Your task to perform on an android device: When is my next meeting? Image 0: 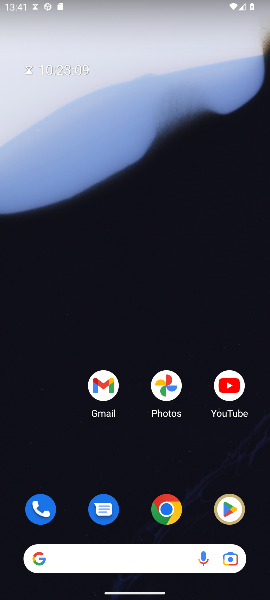
Step 0: press home button
Your task to perform on an android device: When is my next meeting? Image 1: 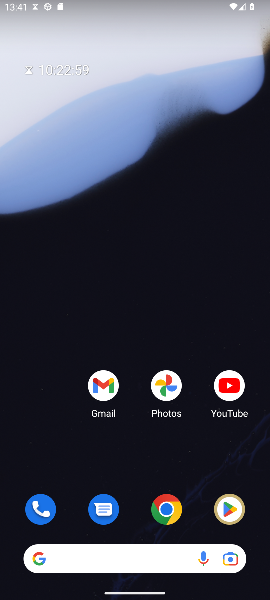
Step 1: drag from (148, 452) to (116, 159)
Your task to perform on an android device: When is my next meeting? Image 2: 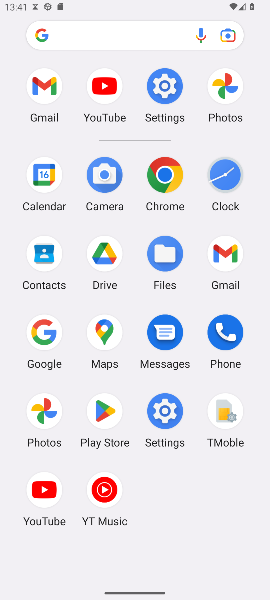
Step 2: click (37, 181)
Your task to perform on an android device: When is my next meeting? Image 3: 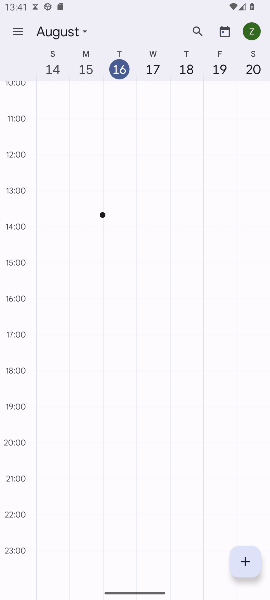
Step 3: click (19, 34)
Your task to perform on an android device: When is my next meeting? Image 4: 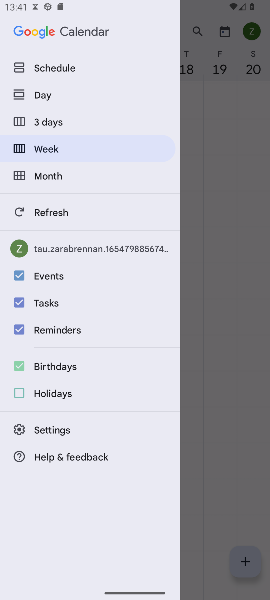
Step 4: click (69, 73)
Your task to perform on an android device: When is my next meeting? Image 5: 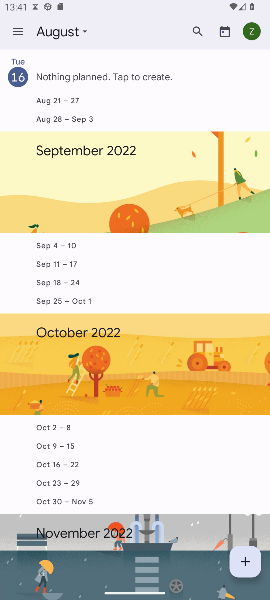
Step 5: task complete